Your task to perform on an android device: Open Google Maps and go to "Timeline" Image 0: 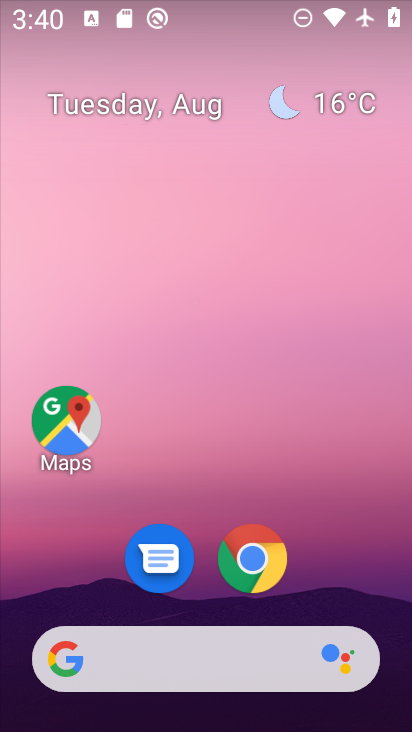
Step 0: click (85, 423)
Your task to perform on an android device: Open Google Maps and go to "Timeline" Image 1: 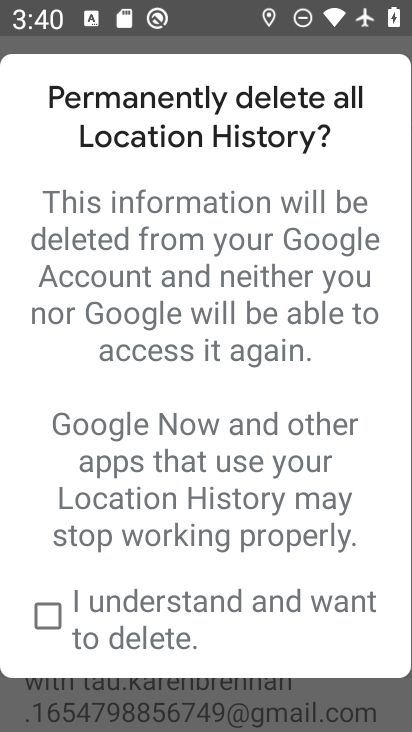
Step 1: press back button
Your task to perform on an android device: Open Google Maps and go to "Timeline" Image 2: 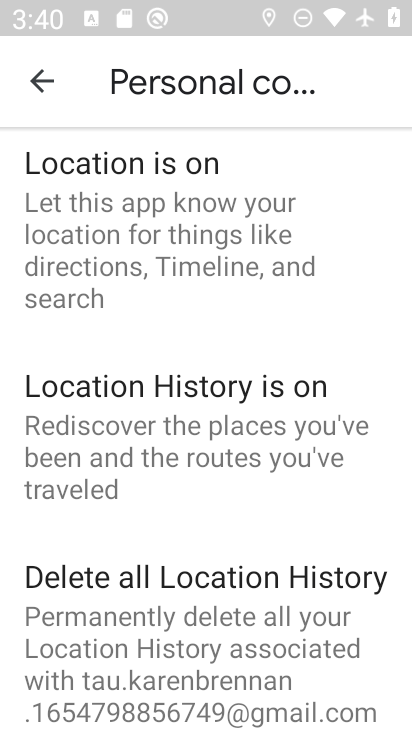
Step 2: click (39, 91)
Your task to perform on an android device: Open Google Maps and go to "Timeline" Image 3: 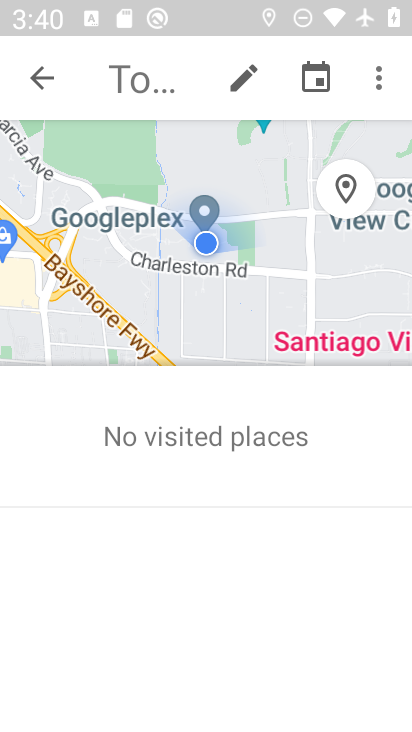
Step 3: click (36, 80)
Your task to perform on an android device: Open Google Maps and go to "Timeline" Image 4: 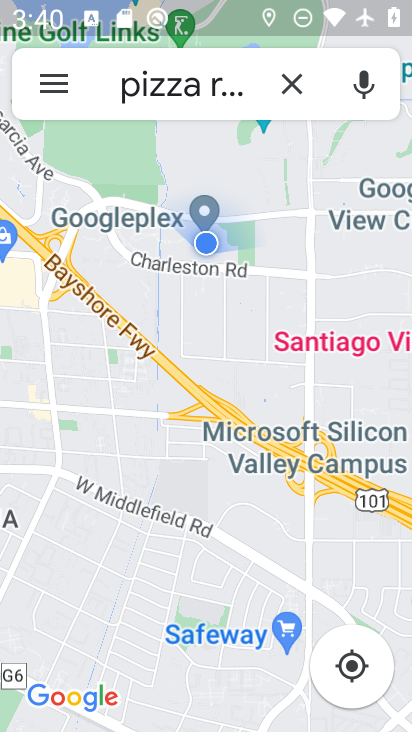
Step 4: click (36, 80)
Your task to perform on an android device: Open Google Maps and go to "Timeline" Image 5: 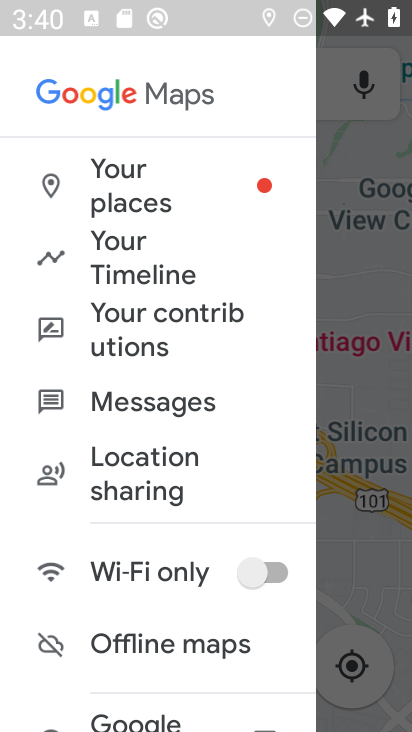
Step 5: click (151, 255)
Your task to perform on an android device: Open Google Maps and go to "Timeline" Image 6: 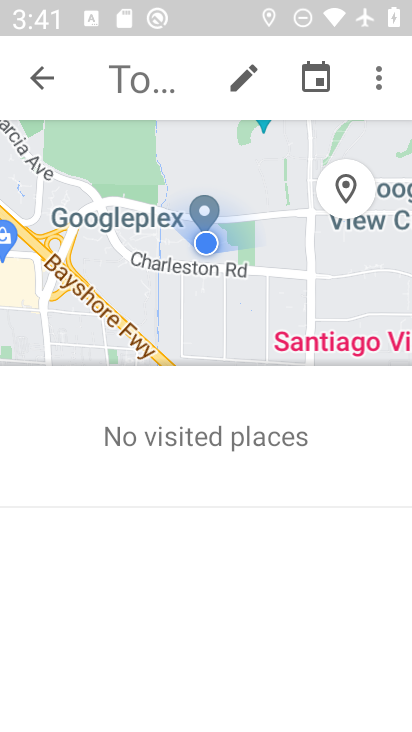
Step 6: task complete